Your task to perform on an android device: Search for vegetarian restaurants on Maps Image 0: 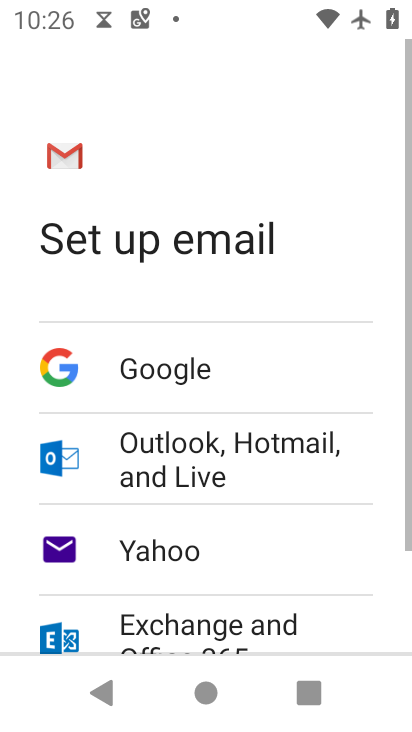
Step 0: press back button
Your task to perform on an android device: Search for vegetarian restaurants on Maps Image 1: 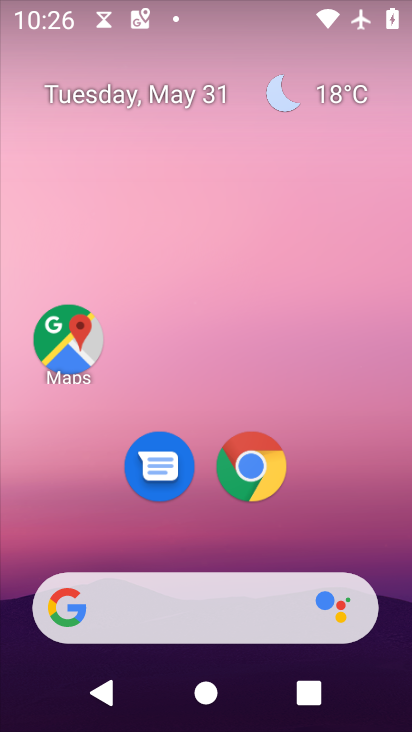
Step 1: drag from (371, 518) to (279, 13)
Your task to perform on an android device: Search for vegetarian restaurants on Maps Image 2: 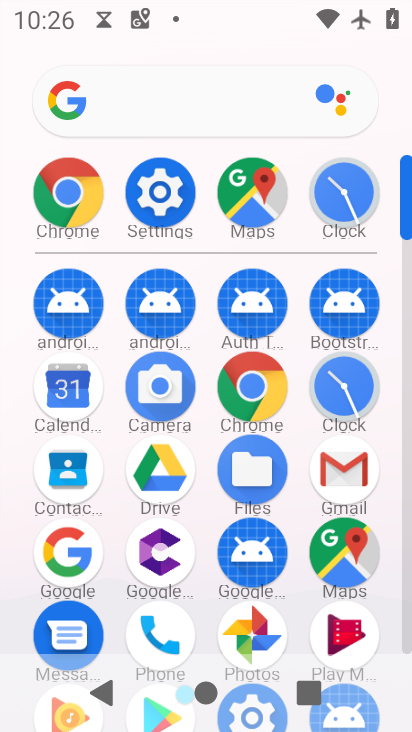
Step 2: click (245, 198)
Your task to perform on an android device: Search for vegetarian restaurants on Maps Image 3: 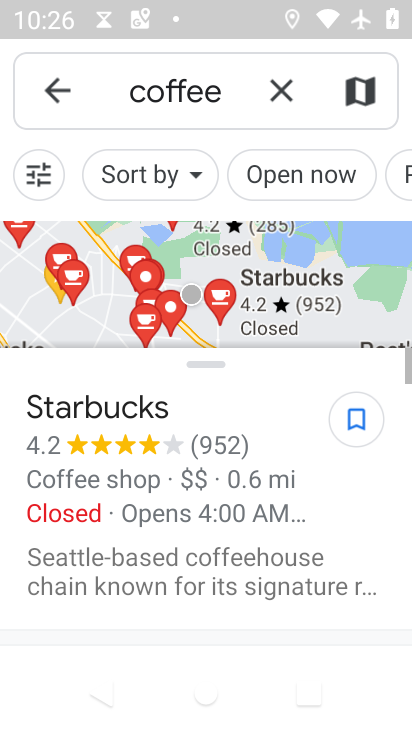
Step 3: click (282, 80)
Your task to perform on an android device: Search for vegetarian restaurants on Maps Image 4: 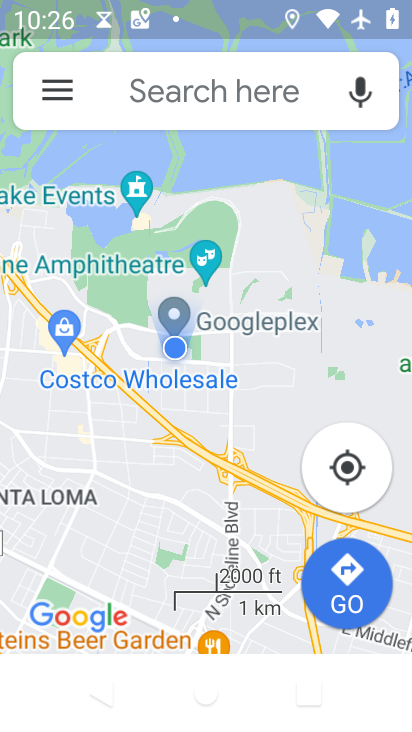
Step 4: click (286, 98)
Your task to perform on an android device: Search for vegetarian restaurants on Maps Image 5: 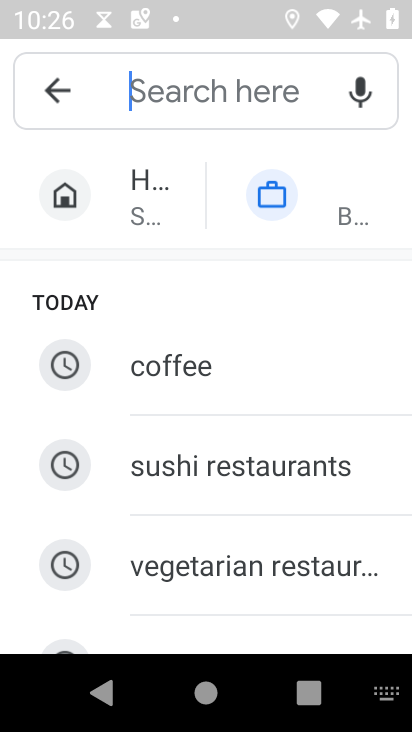
Step 5: click (217, 575)
Your task to perform on an android device: Search for vegetarian restaurants on Maps Image 6: 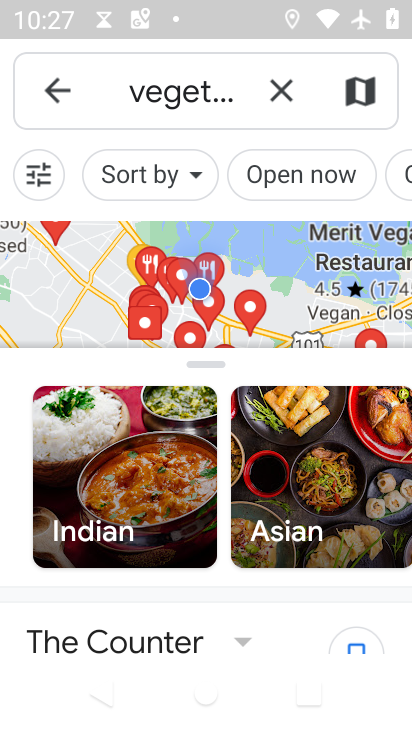
Step 6: task complete